Your task to perform on an android device: Open eBay Image 0: 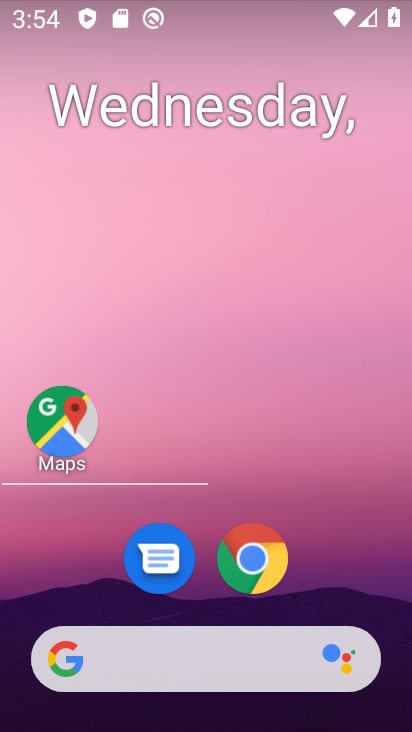
Step 0: click (84, 424)
Your task to perform on an android device: Open eBay Image 1: 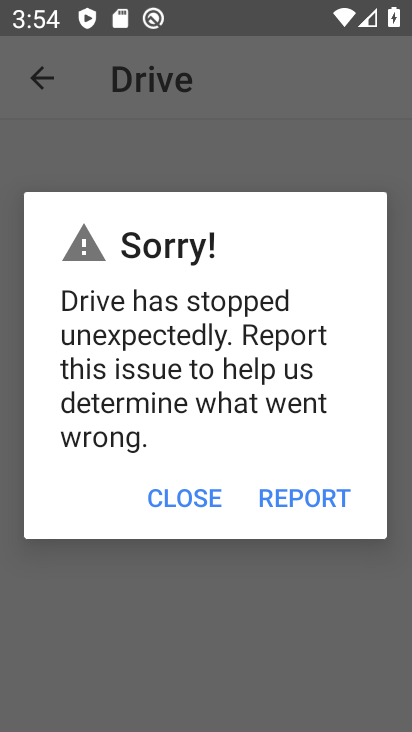
Step 1: press home button
Your task to perform on an android device: Open eBay Image 2: 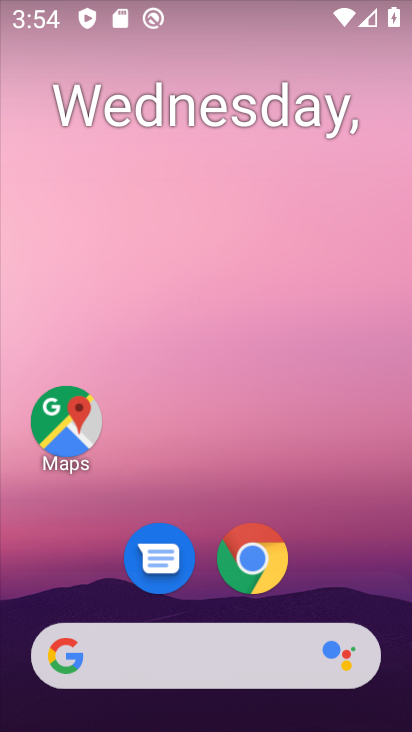
Step 2: drag from (312, 510) to (335, 142)
Your task to perform on an android device: Open eBay Image 3: 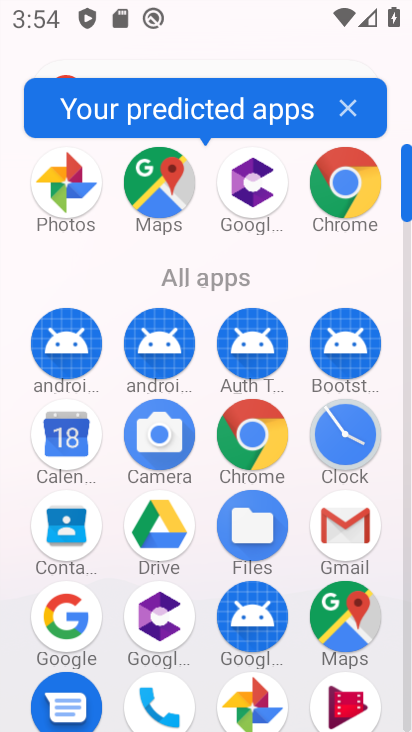
Step 3: click (44, 631)
Your task to perform on an android device: Open eBay Image 4: 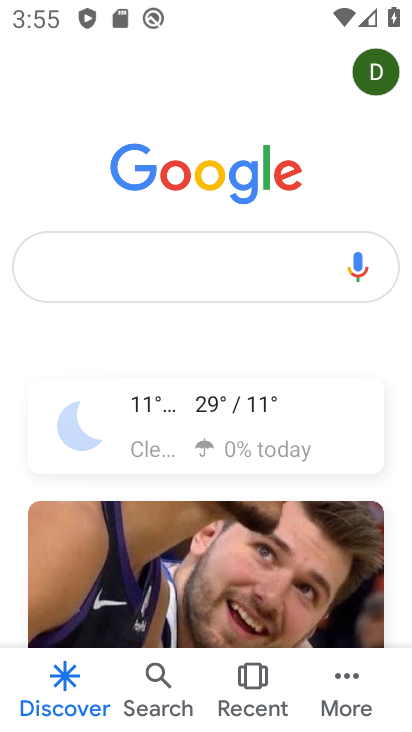
Step 4: click (246, 264)
Your task to perform on an android device: Open eBay Image 5: 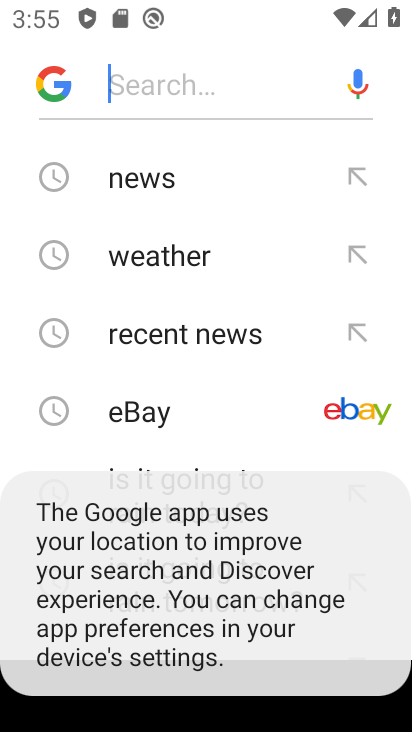
Step 5: click (205, 407)
Your task to perform on an android device: Open eBay Image 6: 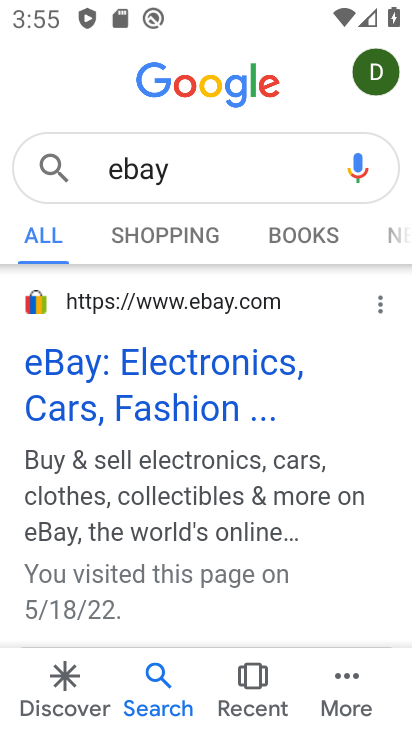
Step 6: task complete